Your task to perform on an android device: open sync settings in chrome Image 0: 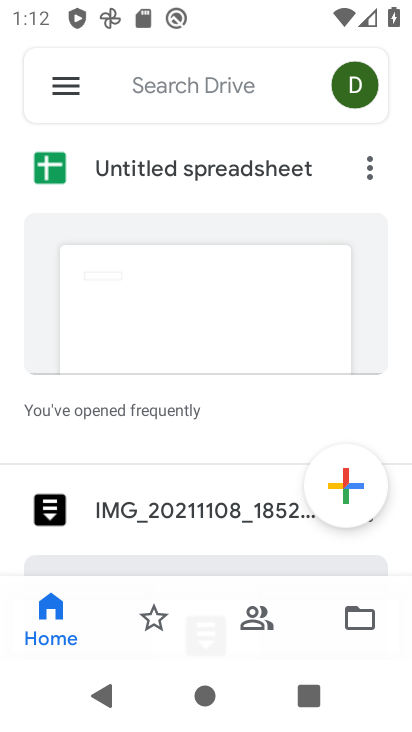
Step 0: press home button
Your task to perform on an android device: open sync settings in chrome Image 1: 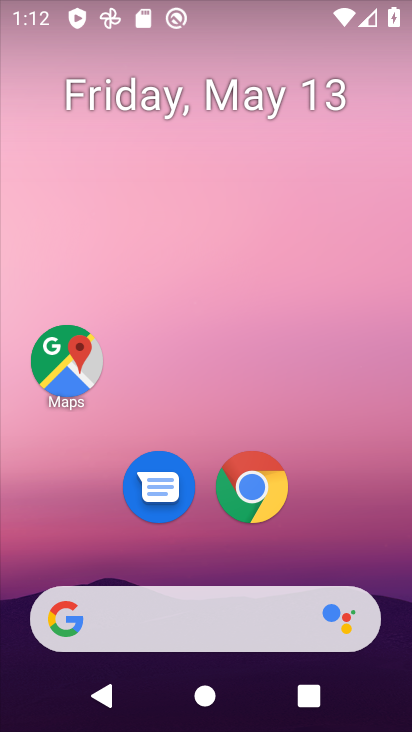
Step 1: drag from (381, 532) to (378, 10)
Your task to perform on an android device: open sync settings in chrome Image 2: 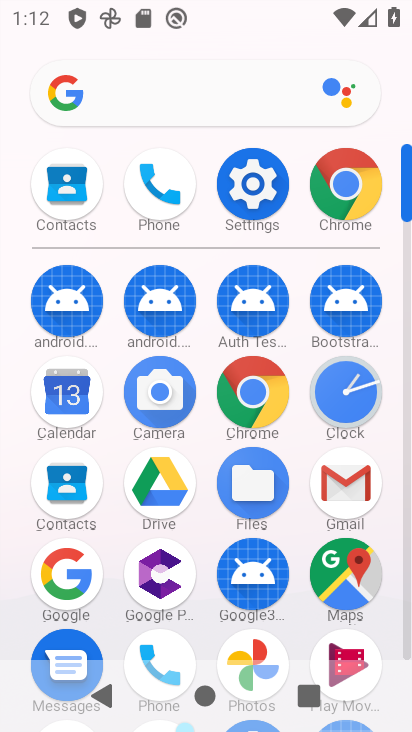
Step 2: click (248, 408)
Your task to perform on an android device: open sync settings in chrome Image 3: 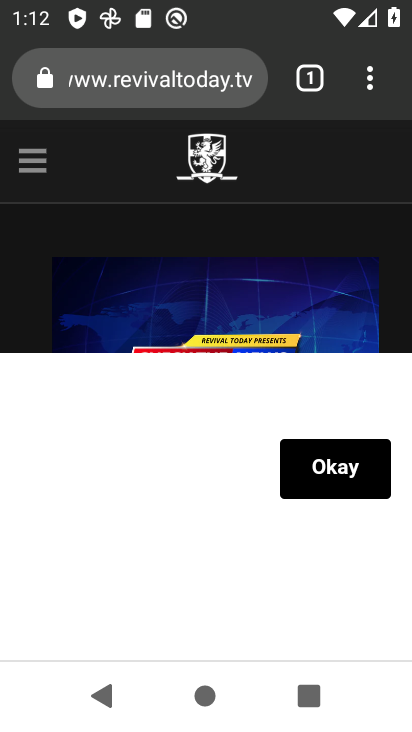
Step 3: click (170, 85)
Your task to perform on an android device: open sync settings in chrome Image 4: 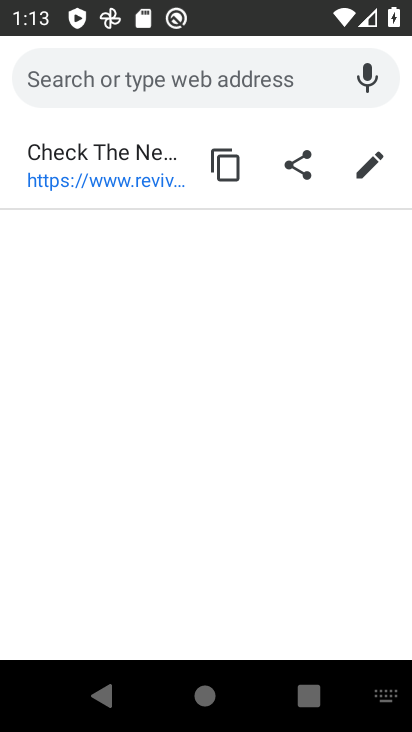
Step 4: press back button
Your task to perform on an android device: open sync settings in chrome Image 5: 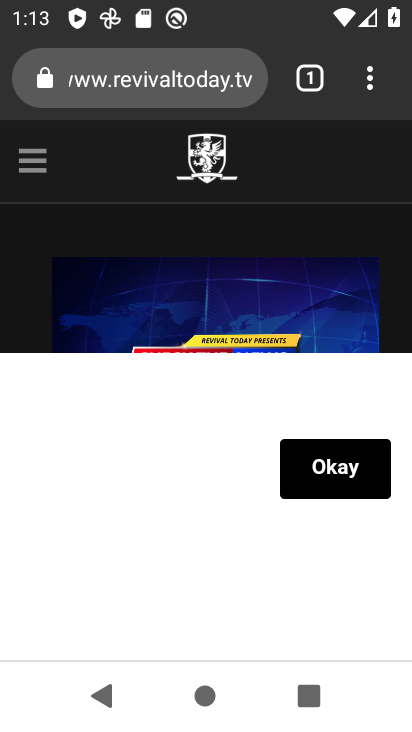
Step 5: drag from (376, 88) to (203, 557)
Your task to perform on an android device: open sync settings in chrome Image 6: 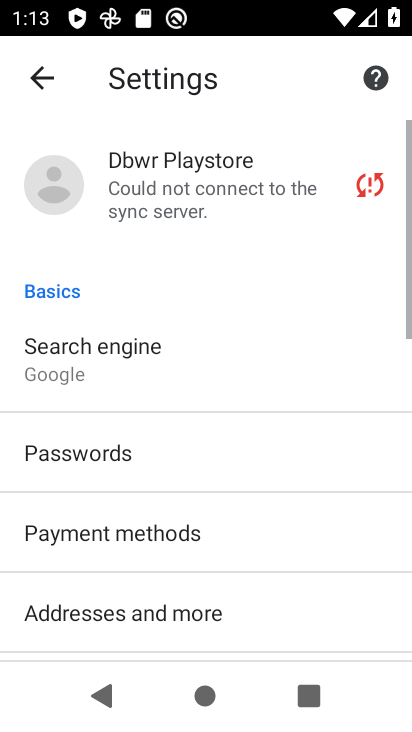
Step 6: drag from (327, 596) to (332, 296)
Your task to perform on an android device: open sync settings in chrome Image 7: 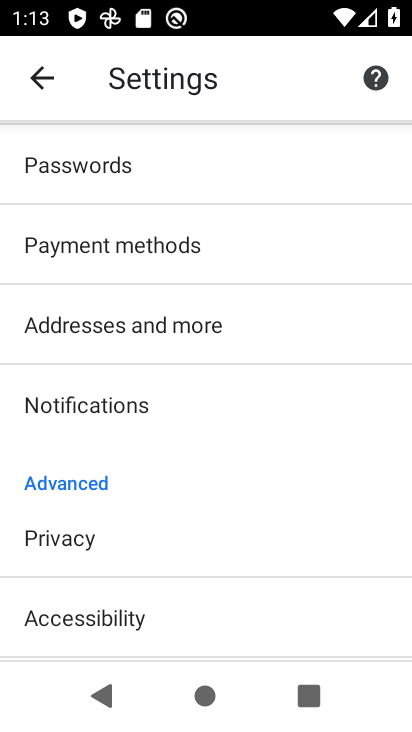
Step 7: drag from (259, 609) to (282, 364)
Your task to perform on an android device: open sync settings in chrome Image 8: 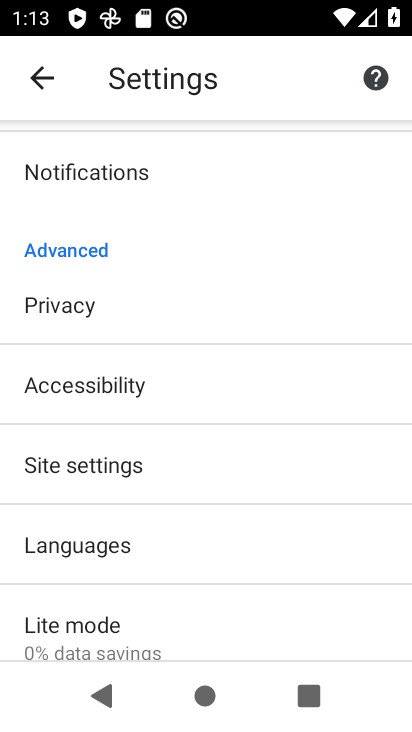
Step 8: click (181, 469)
Your task to perform on an android device: open sync settings in chrome Image 9: 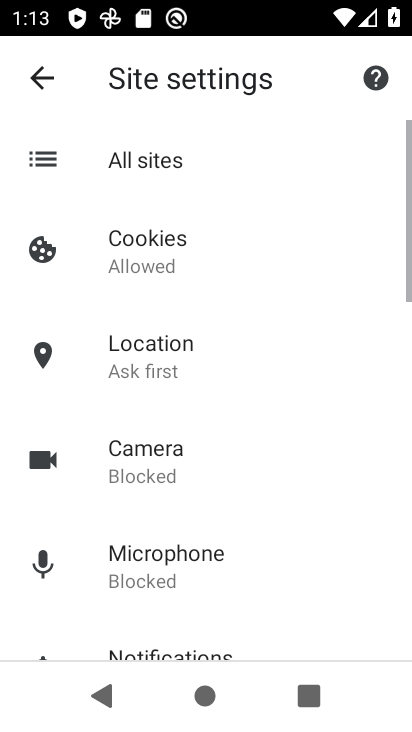
Step 9: drag from (276, 612) to (285, 253)
Your task to perform on an android device: open sync settings in chrome Image 10: 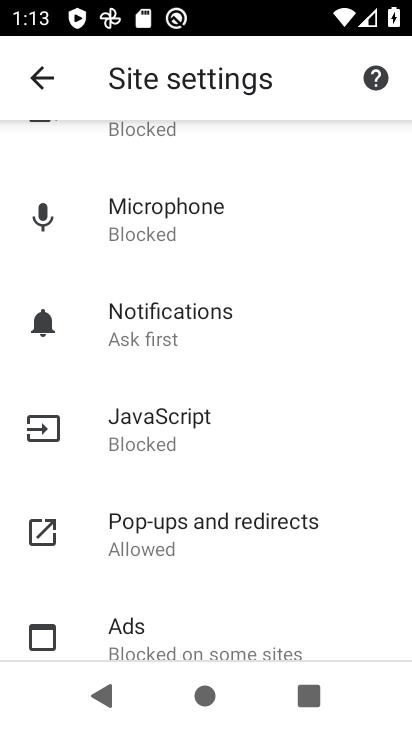
Step 10: drag from (260, 593) to (243, 331)
Your task to perform on an android device: open sync settings in chrome Image 11: 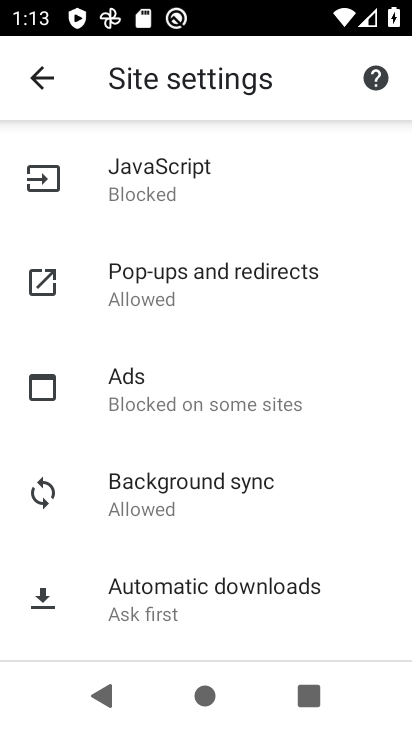
Step 11: click (231, 489)
Your task to perform on an android device: open sync settings in chrome Image 12: 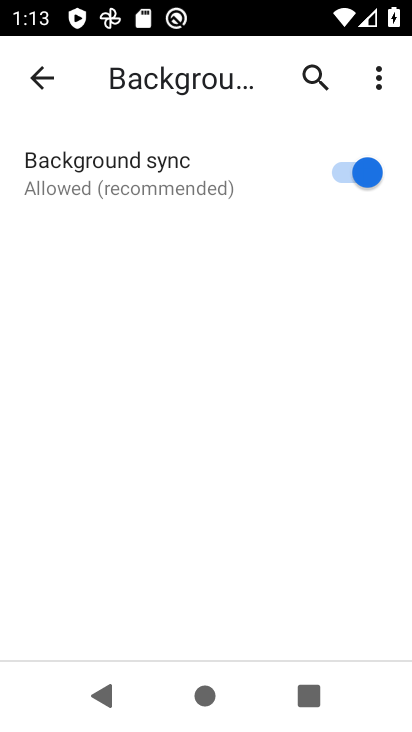
Step 12: task complete